Your task to perform on an android device: delete location history Image 0: 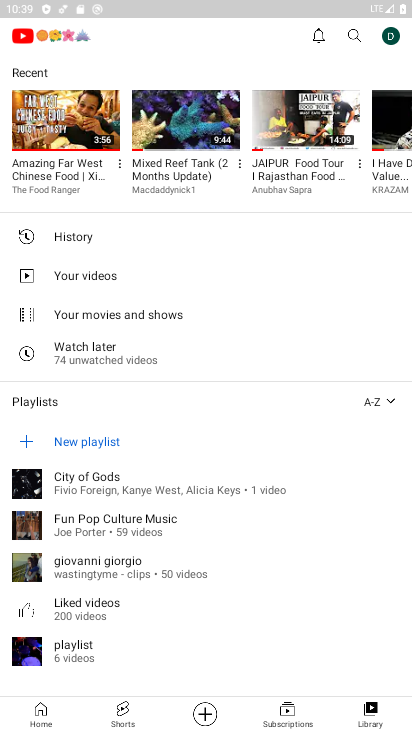
Step 0: press home button
Your task to perform on an android device: delete location history Image 1: 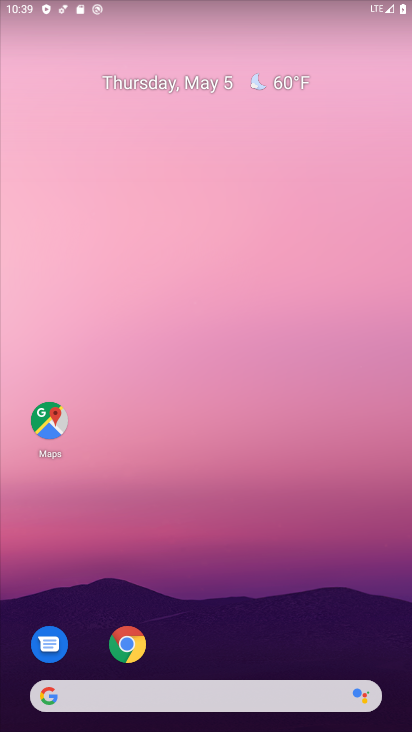
Step 1: drag from (325, 618) to (308, 160)
Your task to perform on an android device: delete location history Image 2: 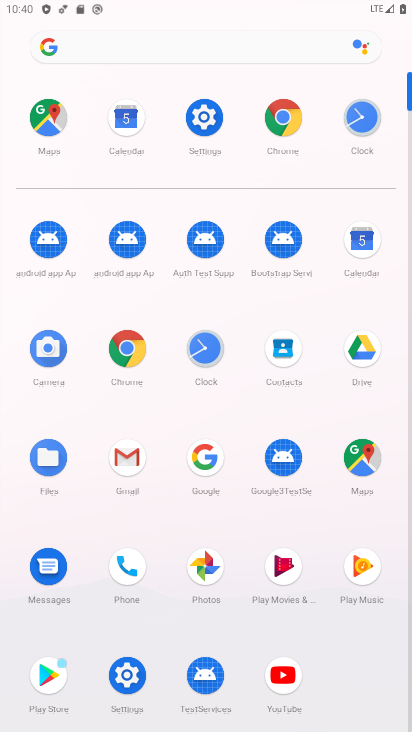
Step 2: click (202, 124)
Your task to perform on an android device: delete location history Image 3: 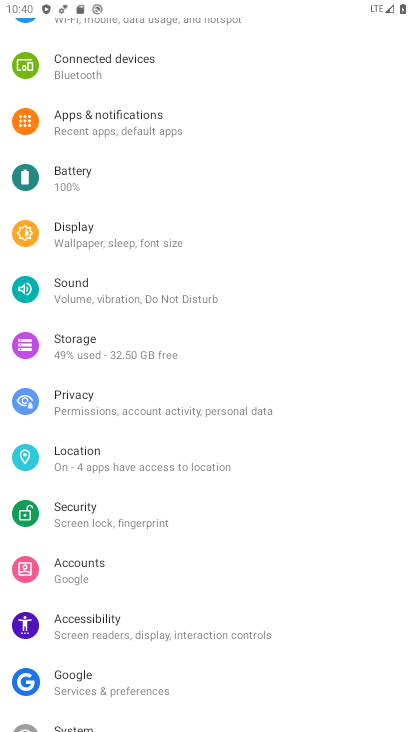
Step 3: click (183, 460)
Your task to perform on an android device: delete location history Image 4: 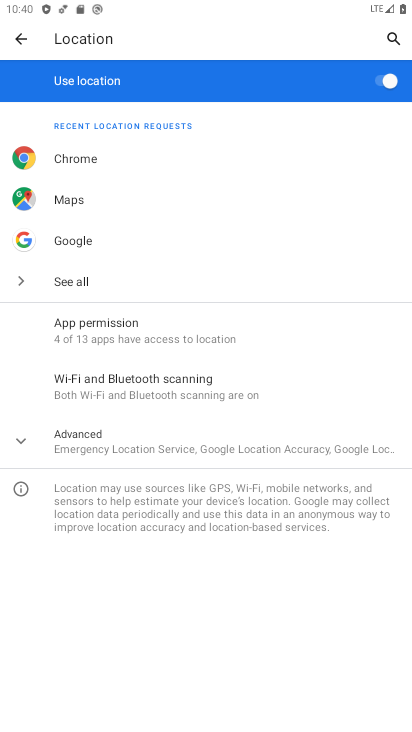
Step 4: click (134, 444)
Your task to perform on an android device: delete location history Image 5: 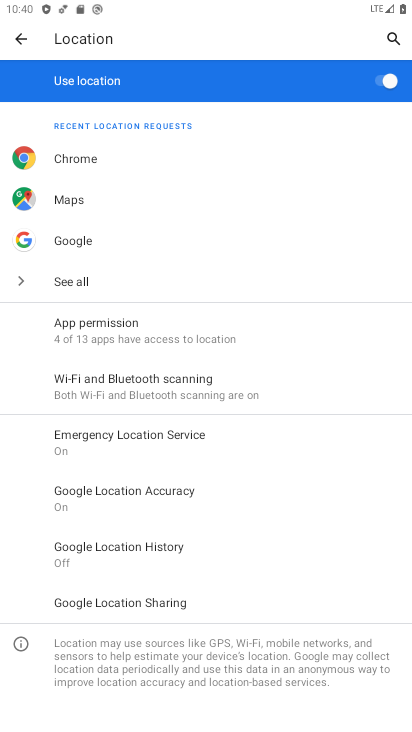
Step 5: click (135, 544)
Your task to perform on an android device: delete location history Image 6: 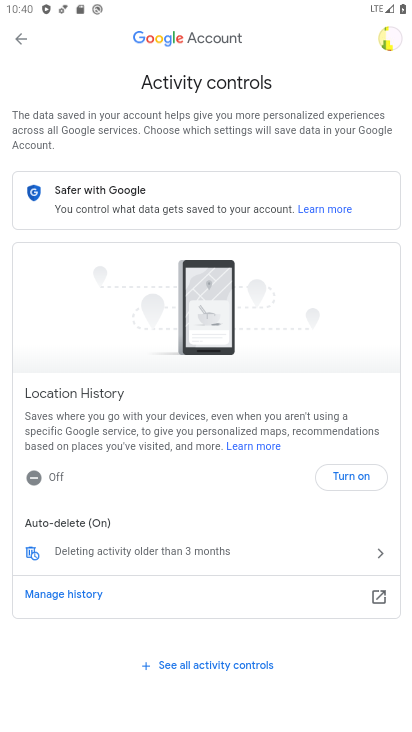
Step 6: click (136, 594)
Your task to perform on an android device: delete location history Image 7: 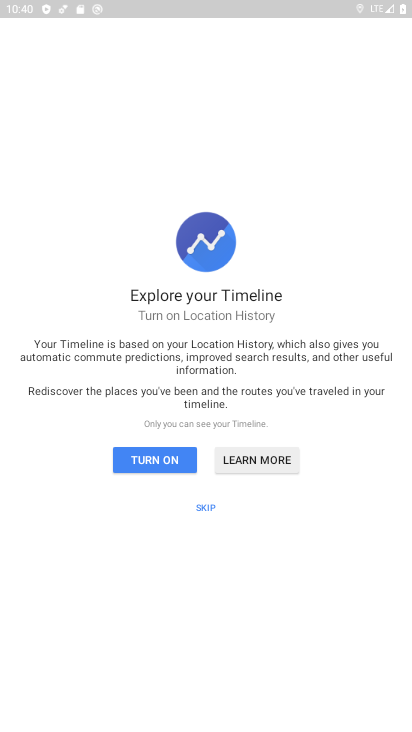
Step 7: click (208, 507)
Your task to perform on an android device: delete location history Image 8: 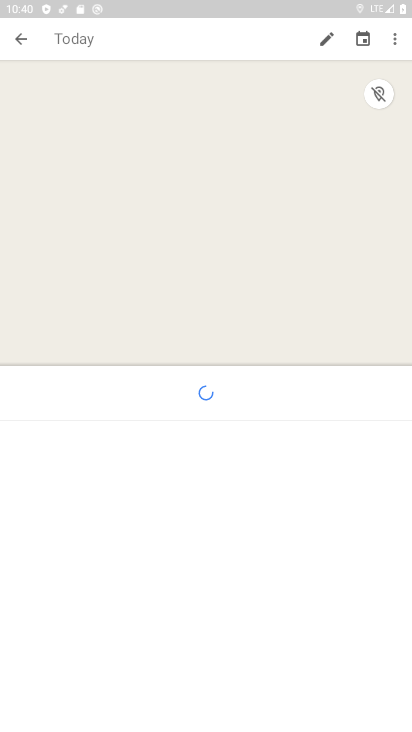
Step 8: click (395, 47)
Your task to perform on an android device: delete location history Image 9: 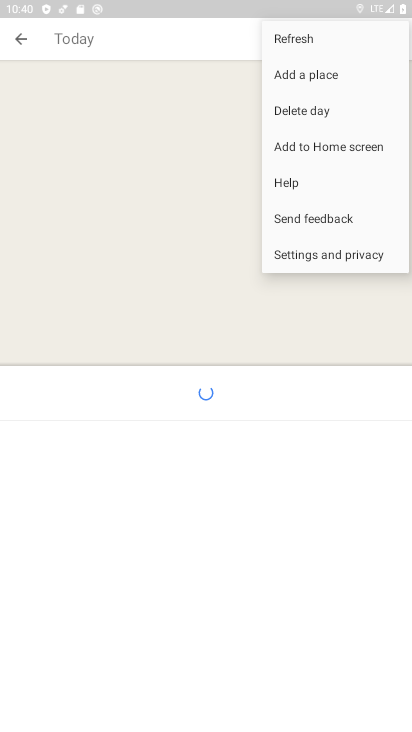
Step 9: click (295, 257)
Your task to perform on an android device: delete location history Image 10: 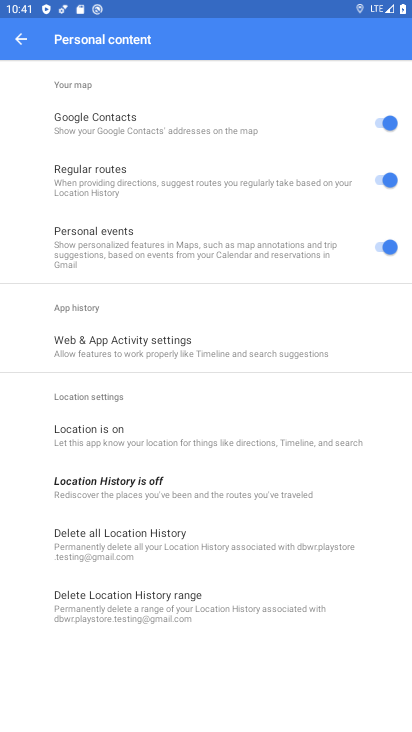
Step 10: click (86, 535)
Your task to perform on an android device: delete location history Image 11: 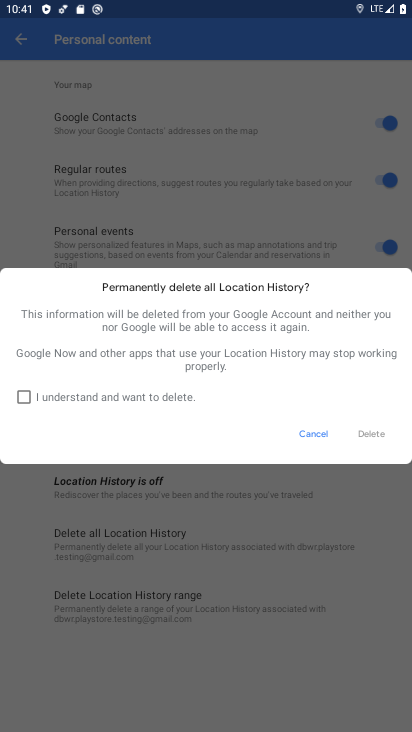
Step 11: click (31, 398)
Your task to perform on an android device: delete location history Image 12: 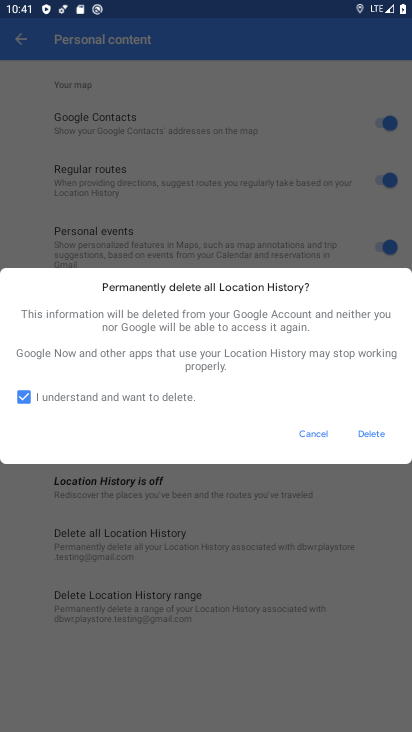
Step 12: click (368, 440)
Your task to perform on an android device: delete location history Image 13: 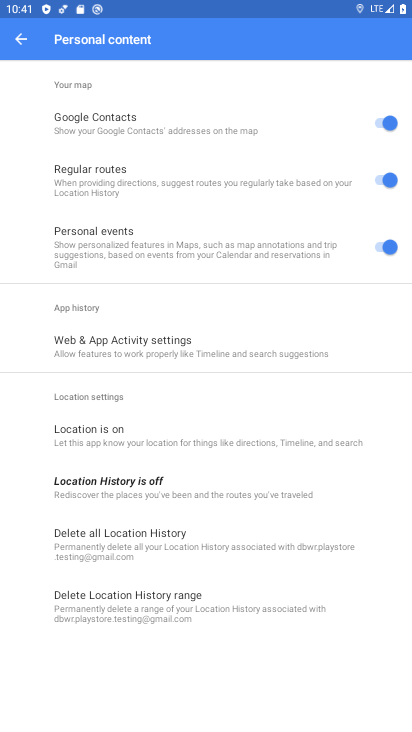
Step 13: task complete